Your task to perform on an android device: toggle show notifications on the lock screen Image 0: 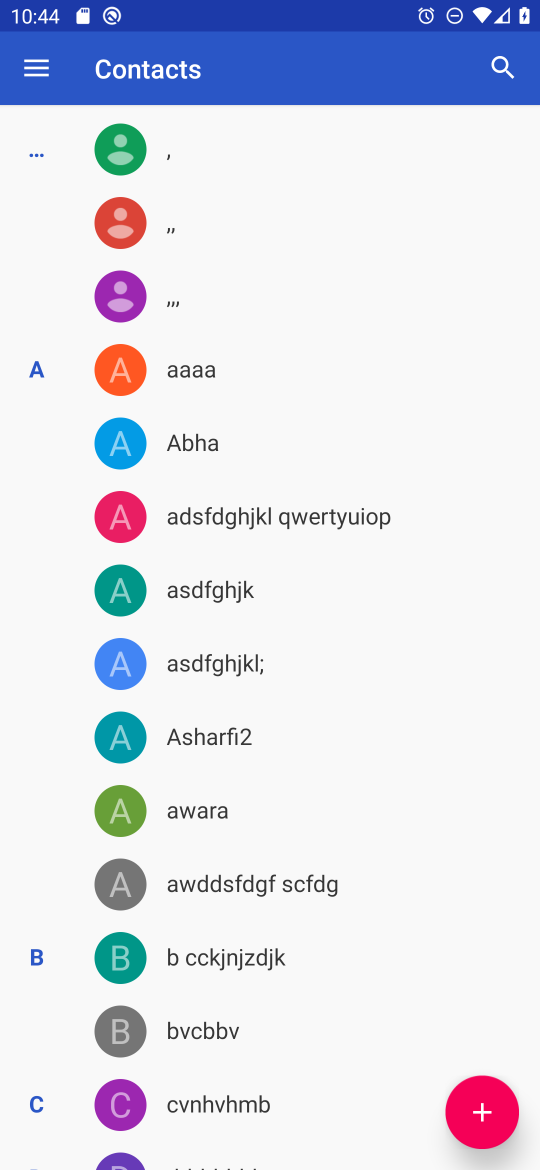
Step 0: press home button
Your task to perform on an android device: toggle show notifications on the lock screen Image 1: 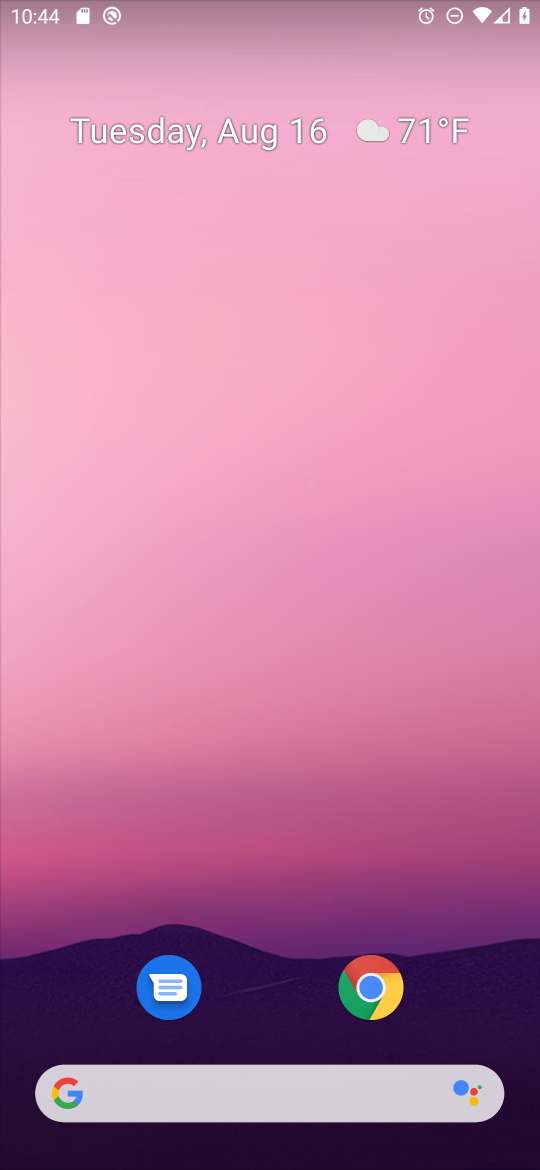
Step 1: drag from (19, 1118) to (202, 209)
Your task to perform on an android device: toggle show notifications on the lock screen Image 2: 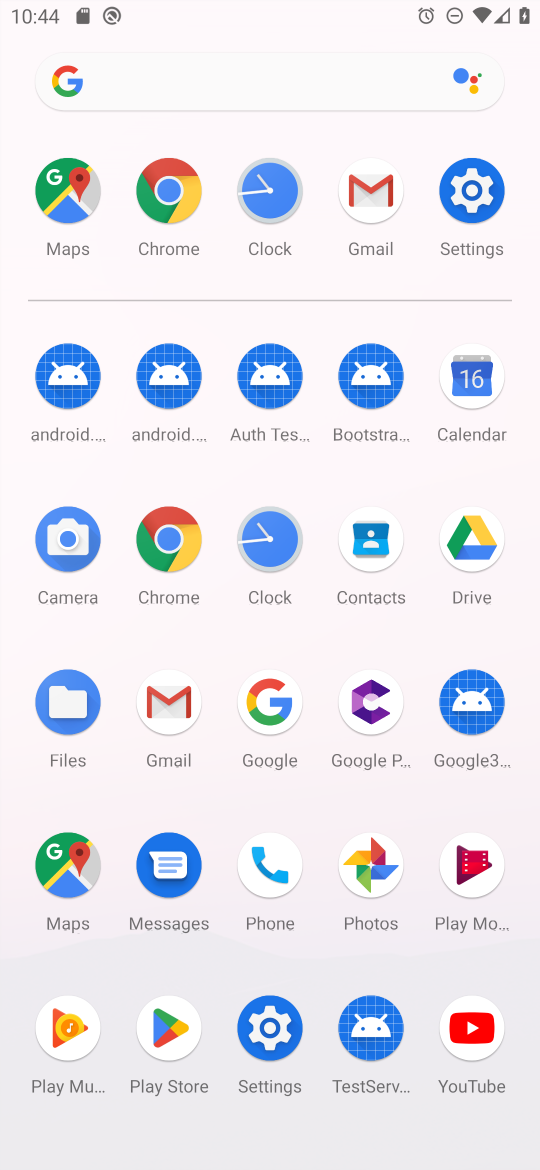
Step 2: click (262, 1032)
Your task to perform on an android device: toggle show notifications on the lock screen Image 3: 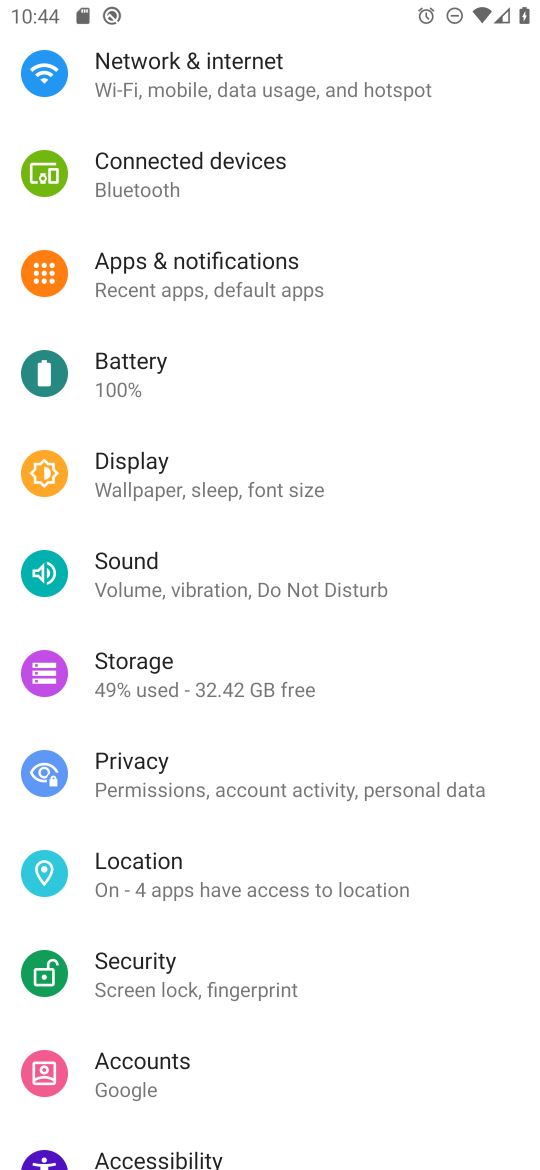
Step 3: click (204, 266)
Your task to perform on an android device: toggle show notifications on the lock screen Image 4: 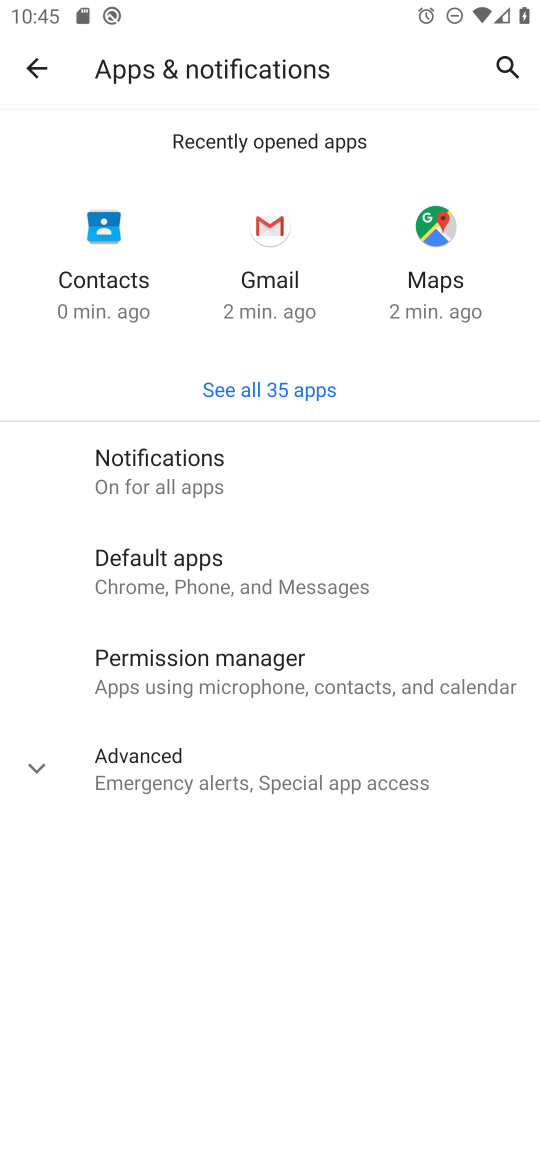
Step 4: click (160, 744)
Your task to perform on an android device: toggle show notifications on the lock screen Image 5: 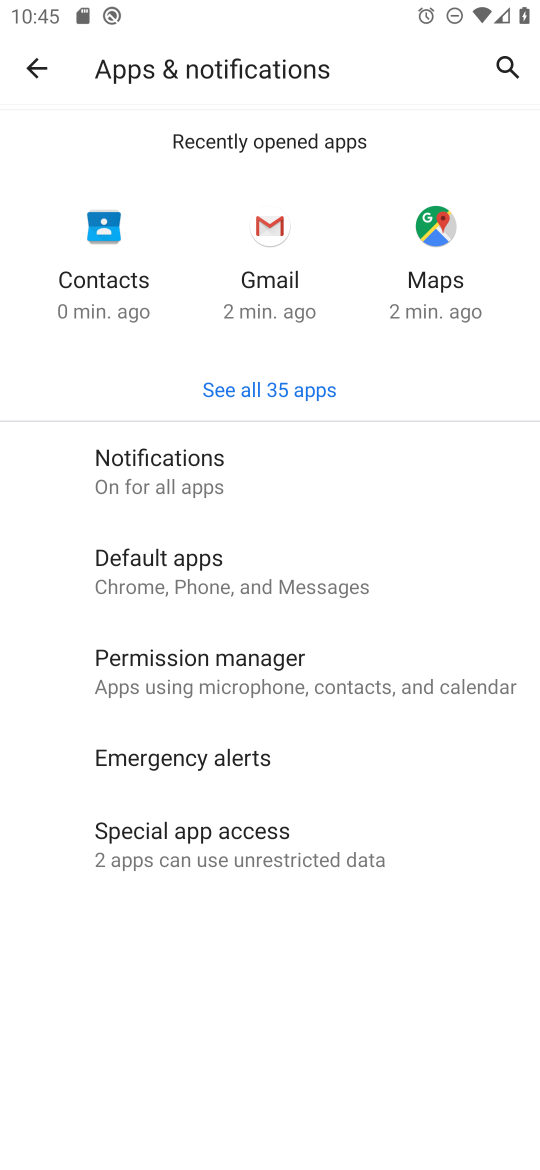
Step 5: click (198, 491)
Your task to perform on an android device: toggle show notifications on the lock screen Image 6: 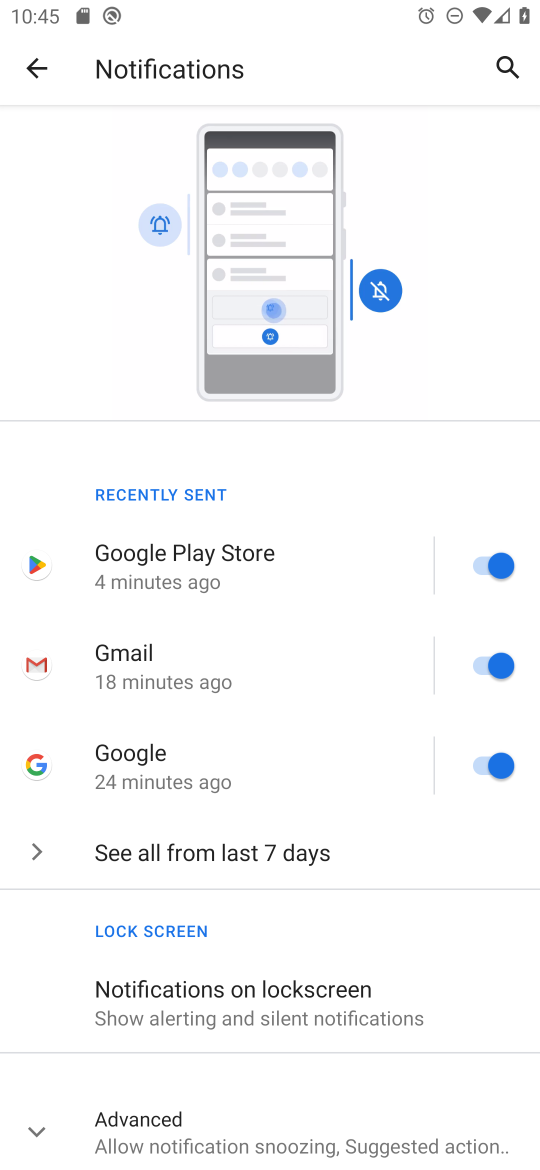
Step 6: click (217, 1021)
Your task to perform on an android device: toggle show notifications on the lock screen Image 7: 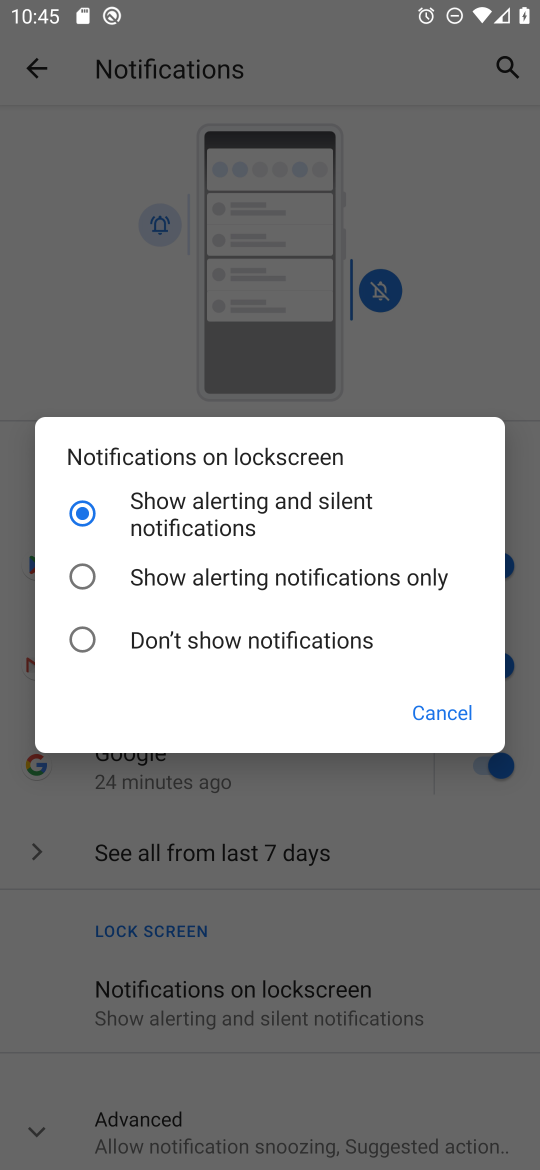
Step 7: task complete